Your task to perform on an android device: change the upload size in google photos Image 0: 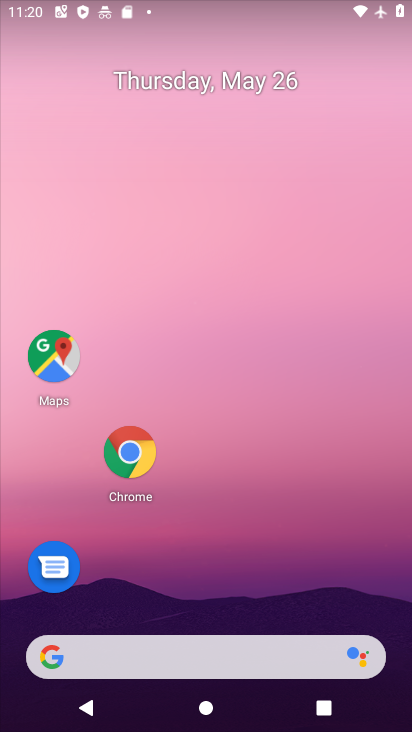
Step 0: drag from (168, 639) to (345, 224)
Your task to perform on an android device: change the upload size in google photos Image 1: 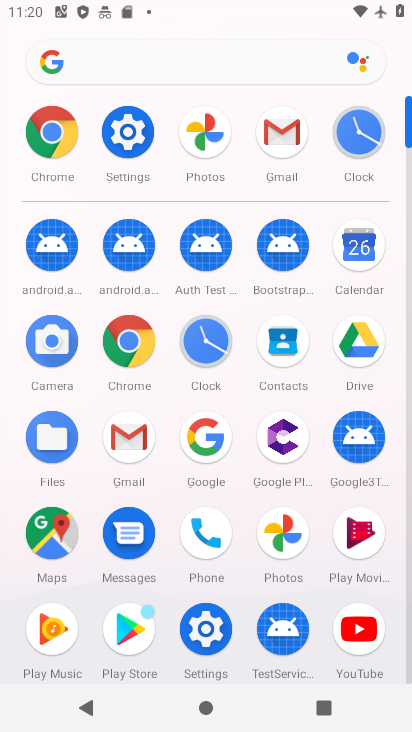
Step 1: click (293, 543)
Your task to perform on an android device: change the upload size in google photos Image 2: 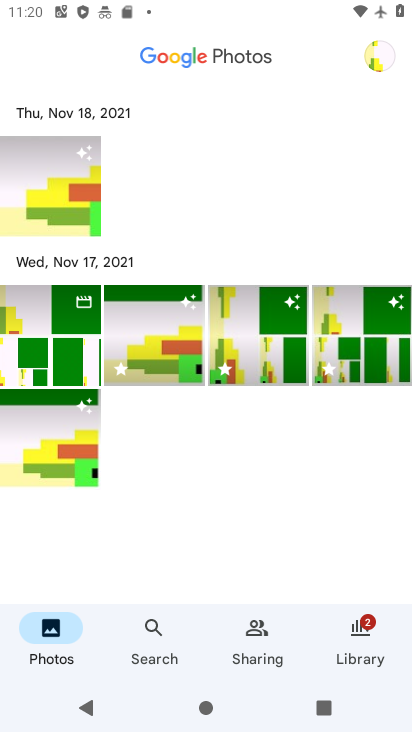
Step 2: click (380, 39)
Your task to perform on an android device: change the upload size in google photos Image 3: 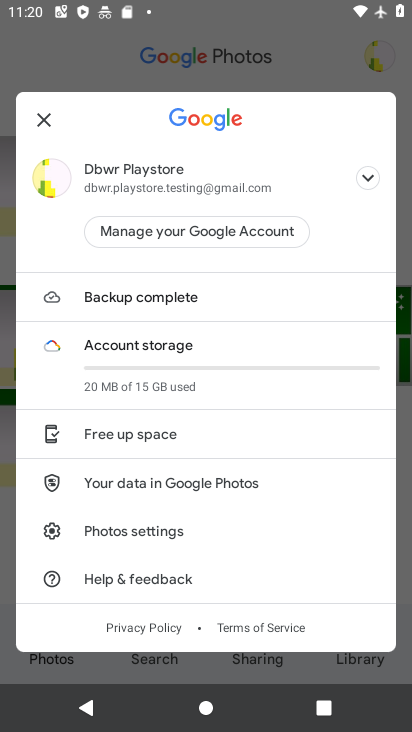
Step 3: click (166, 528)
Your task to perform on an android device: change the upload size in google photos Image 4: 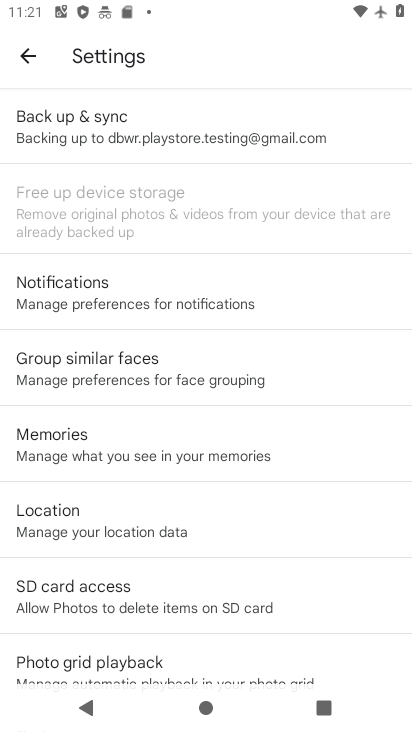
Step 4: click (314, 125)
Your task to perform on an android device: change the upload size in google photos Image 5: 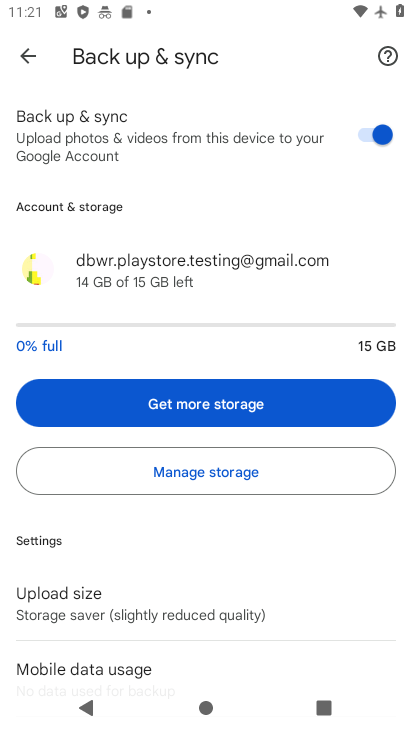
Step 5: click (117, 604)
Your task to perform on an android device: change the upload size in google photos Image 6: 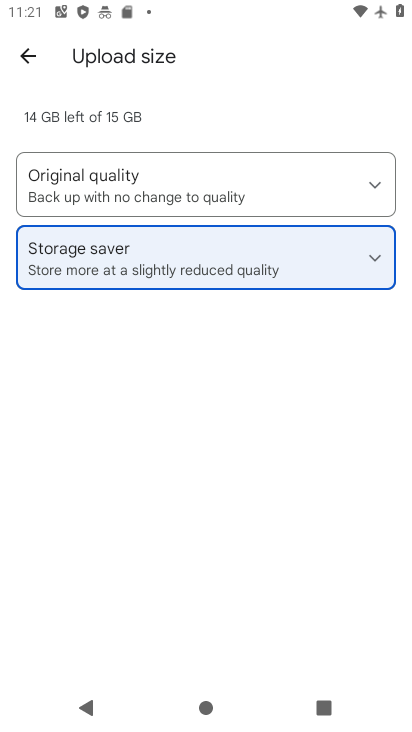
Step 6: click (374, 179)
Your task to perform on an android device: change the upload size in google photos Image 7: 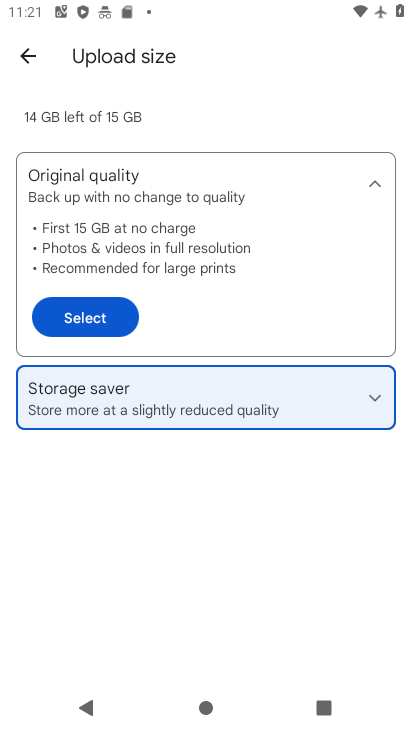
Step 7: click (95, 322)
Your task to perform on an android device: change the upload size in google photos Image 8: 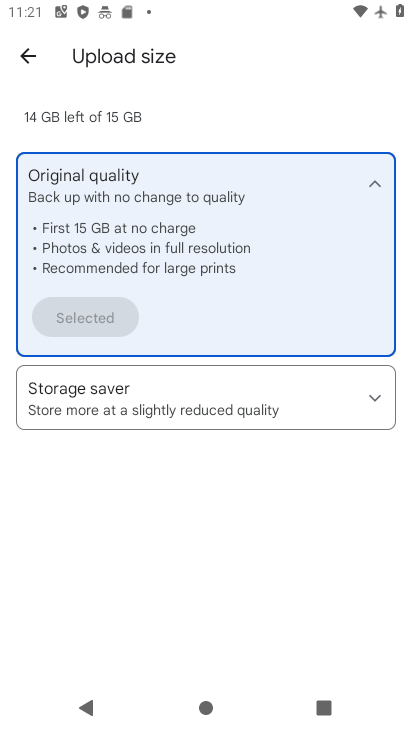
Step 8: task complete